Your task to perform on an android device: Add "macbook" to the cart on newegg Image 0: 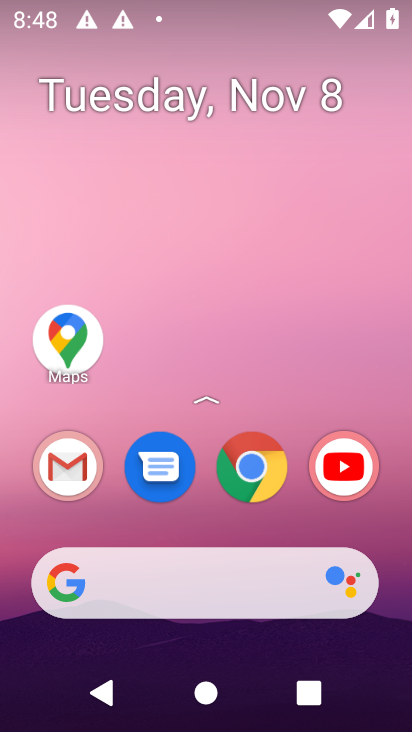
Step 0: click (213, 602)
Your task to perform on an android device: Add "macbook" to the cart on newegg Image 1: 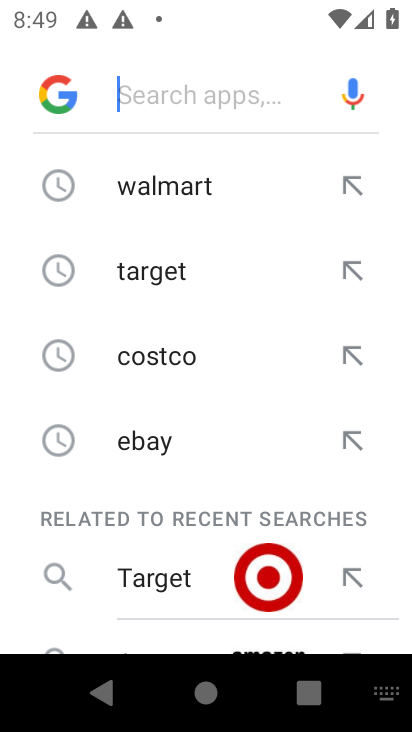
Step 1: type "newegg"
Your task to perform on an android device: Add "macbook" to the cart on newegg Image 2: 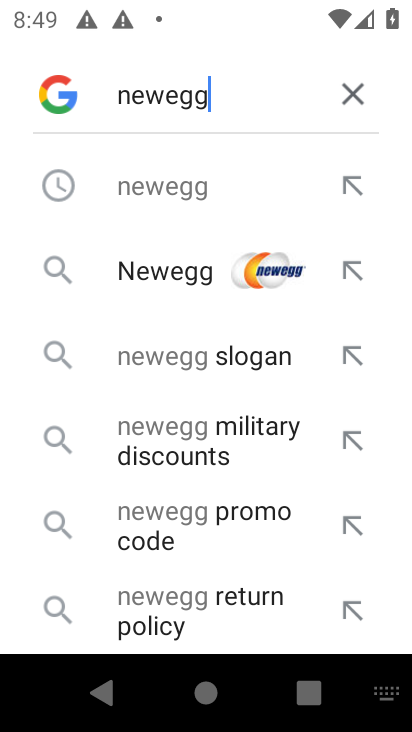
Step 2: click (221, 271)
Your task to perform on an android device: Add "macbook" to the cart on newegg Image 3: 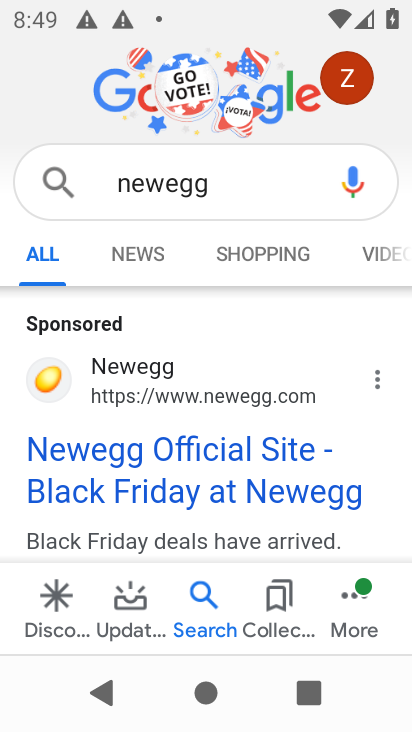
Step 3: click (155, 485)
Your task to perform on an android device: Add "macbook" to the cart on newegg Image 4: 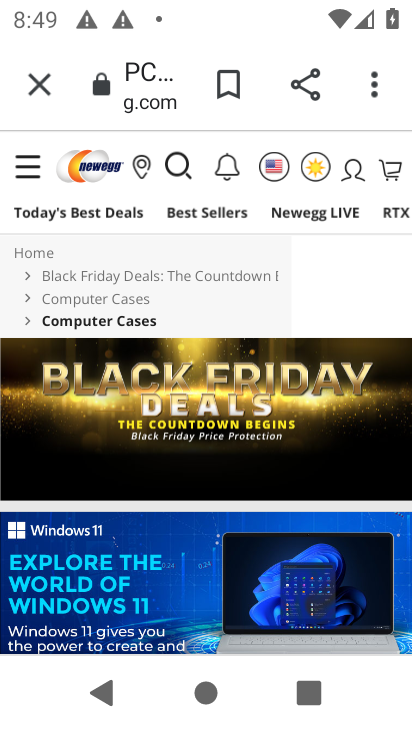
Step 4: click (161, 160)
Your task to perform on an android device: Add "macbook" to the cart on newegg Image 5: 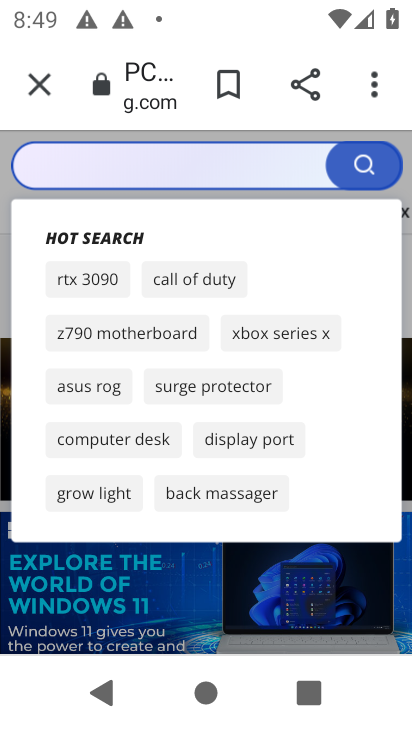
Step 5: type "macbook"
Your task to perform on an android device: Add "macbook" to the cart on newegg Image 6: 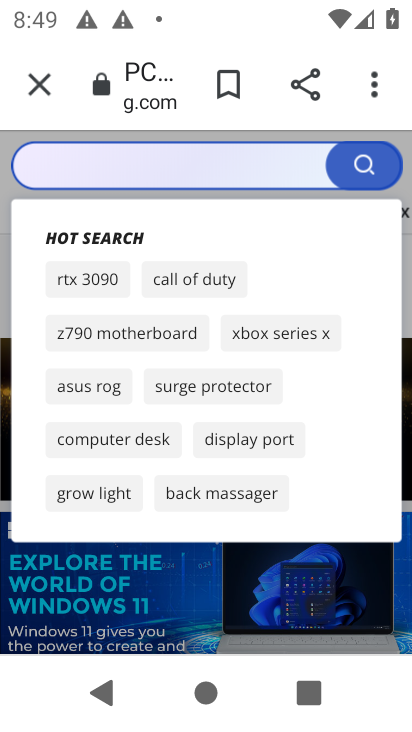
Step 6: click (183, 165)
Your task to perform on an android device: Add "macbook" to the cart on newegg Image 7: 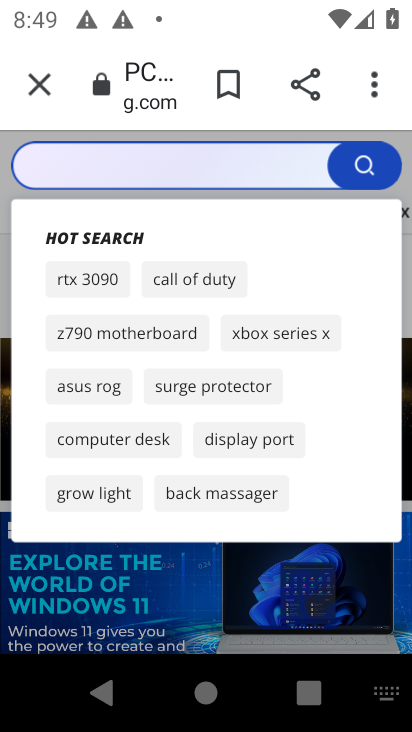
Step 7: type "macbook"
Your task to perform on an android device: Add "macbook" to the cart on newegg Image 8: 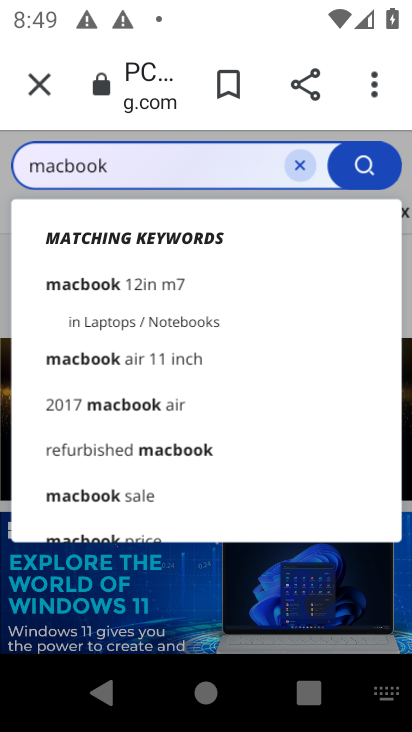
Step 8: click (141, 275)
Your task to perform on an android device: Add "macbook" to the cart on newegg Image 9: 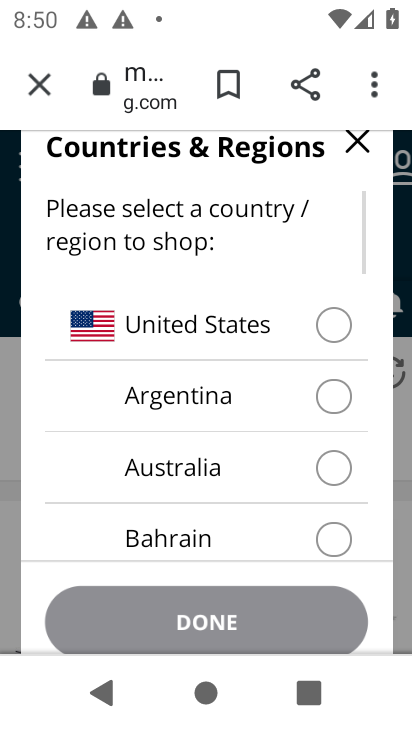
Step 9: task complete